Your task to perform on an android device: Open Amazon Image 0: 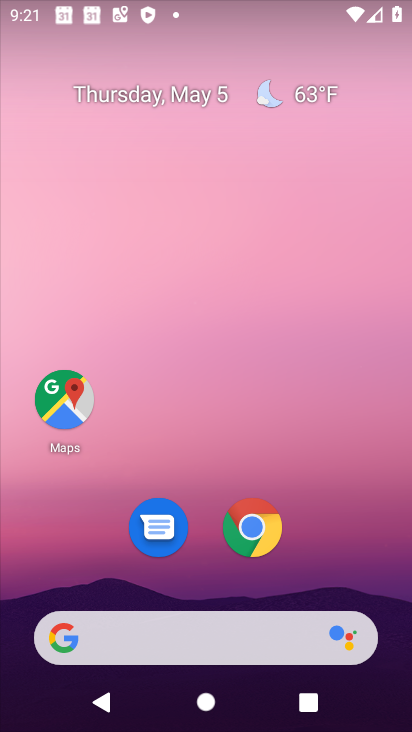
Step 0: click (146, 642)
Your task to perform on an android device: Open Amazon Image 1: 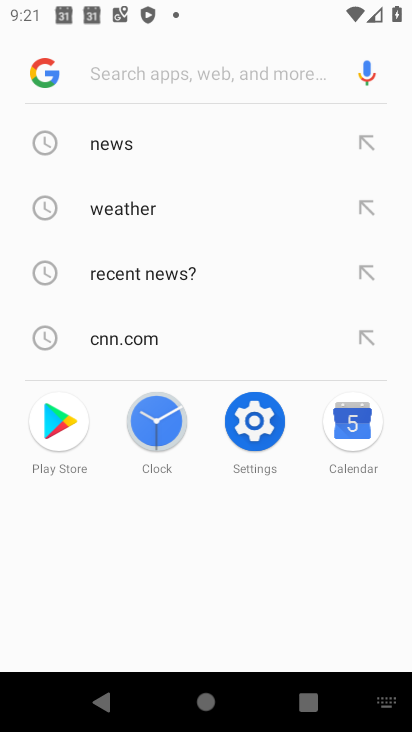
Step 1: type "amazon"
Your task to perform on an android device: Open Amazon Image 2: 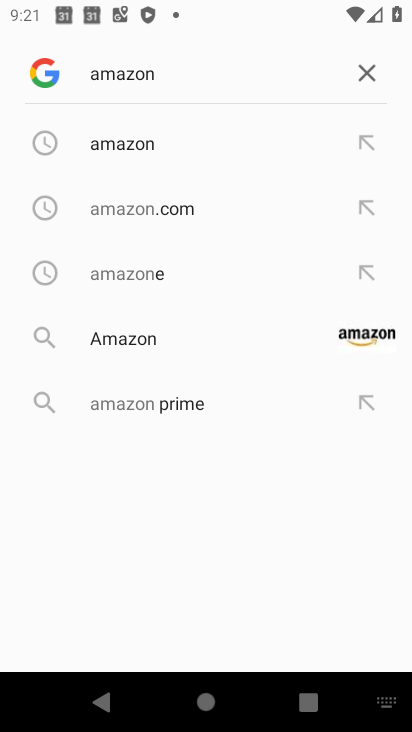
Step 2: click (223, 350)
Your task to perform on an android device: Open Amazon Image 3: 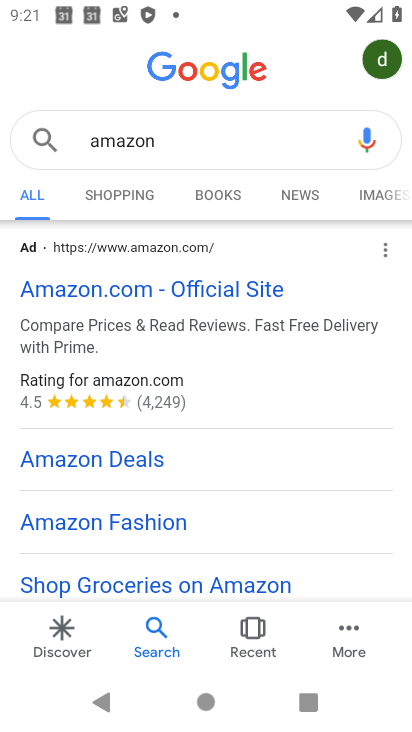
Step 3: task complete